Your task to perform on an android device: turn notification dots off Image 0: 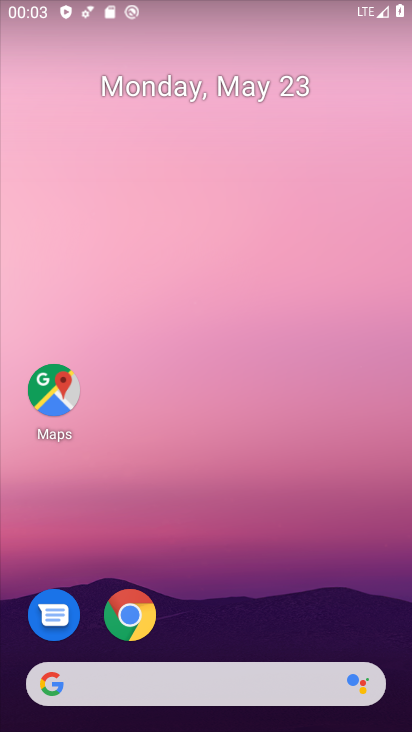
Step 0: drag from (268, 580) to (318, 90)
Your task to perform on an android device: turn notification dots off Image 1: 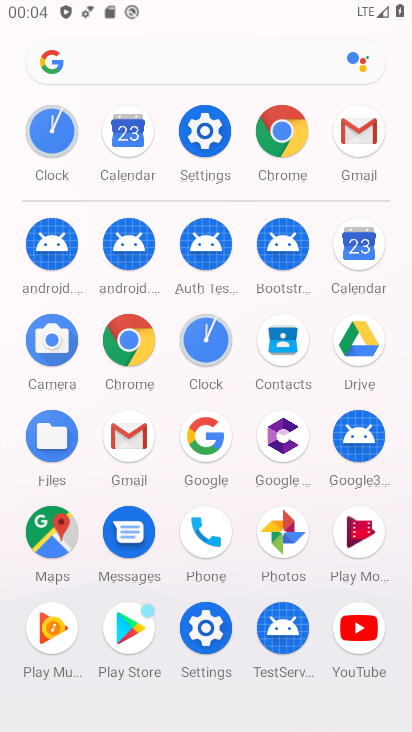
Step 1: click (211, 125)
Your task to perform on an android device: turn notification dots off Image 2: 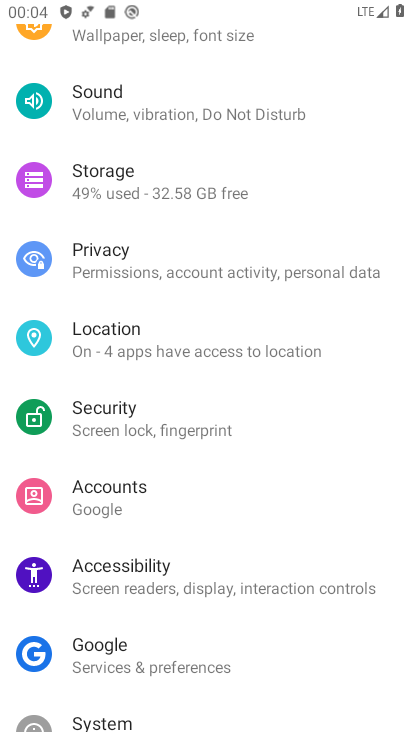
Step 2: drag from (212, 131) to (139, 677)
Your task to perform on an android device: turn notification dots off Image 3: 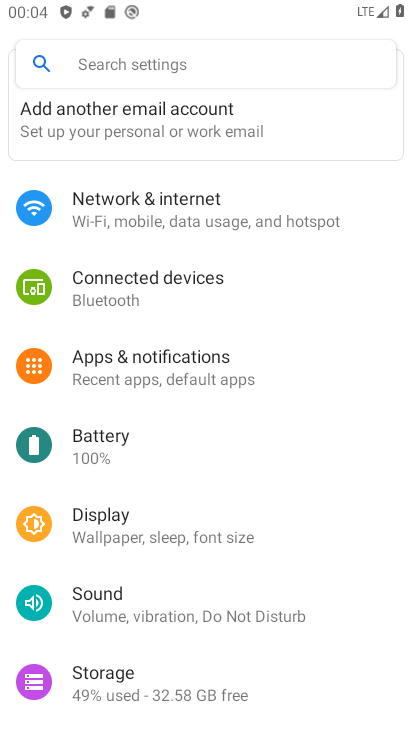
Step 3: click (146, 357)
Your task to perform on an android device: turn notification dots off Image 4: 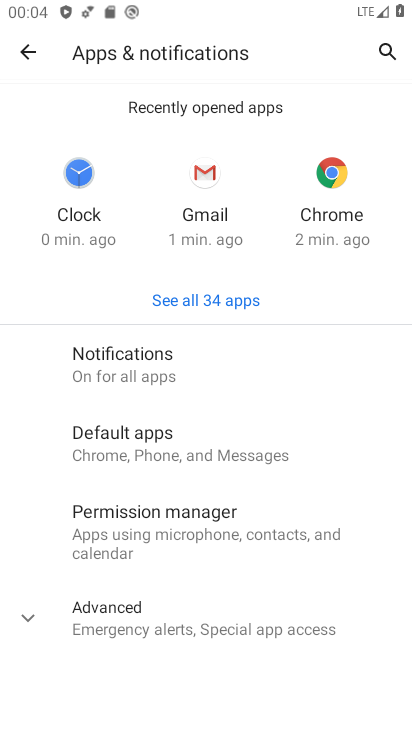
Step 4: click (158, 350)
Your task to perform on an android device: turn notification dots off Image 5: 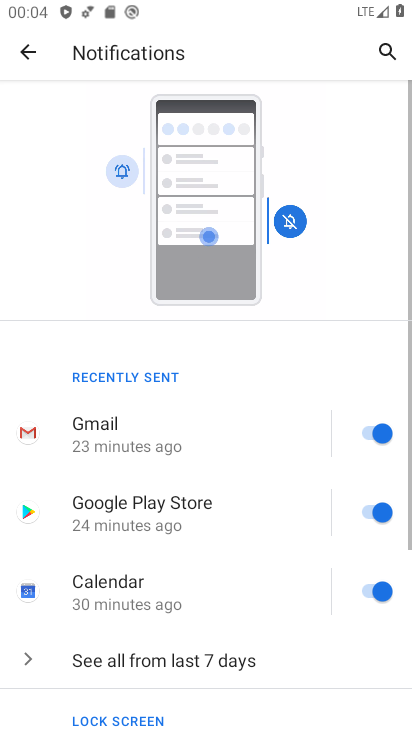
Step 5: drag from (180, 645) to (202, 307)
Your task to perform on an android device: turn notification dots off Image 6: 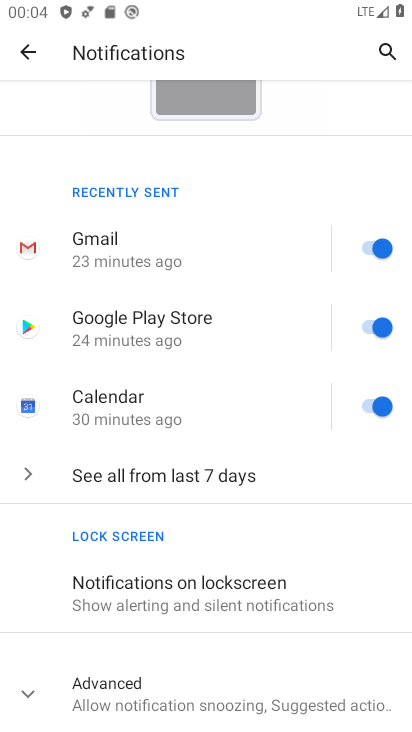
Step 6: click (160, 692)
Your task to perform on an android device: turn notification dots off Image 7: 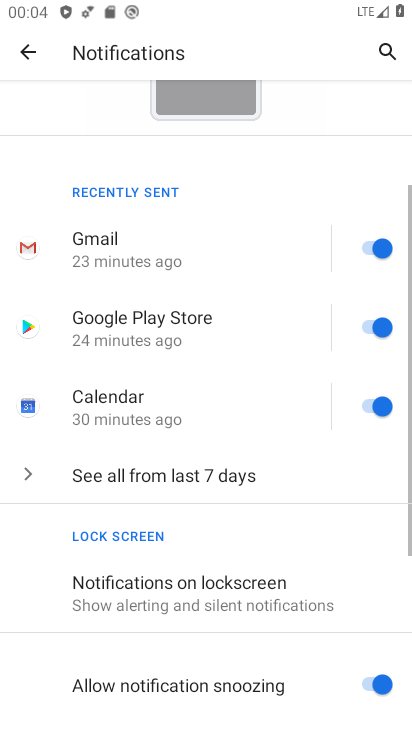
Step 7: drag from (155, 689) to (222, 210)
Your task to perform on an android device: turn notification dots off Image 8: 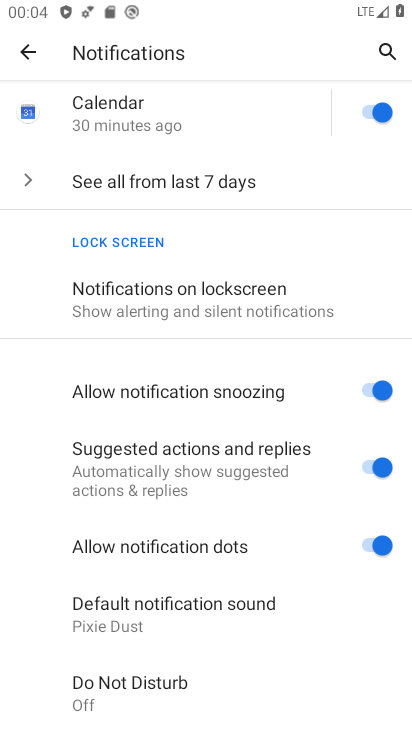
Step 8: click (379, 542)
Your task to perform on an android device: turn notification dots off Image 9: 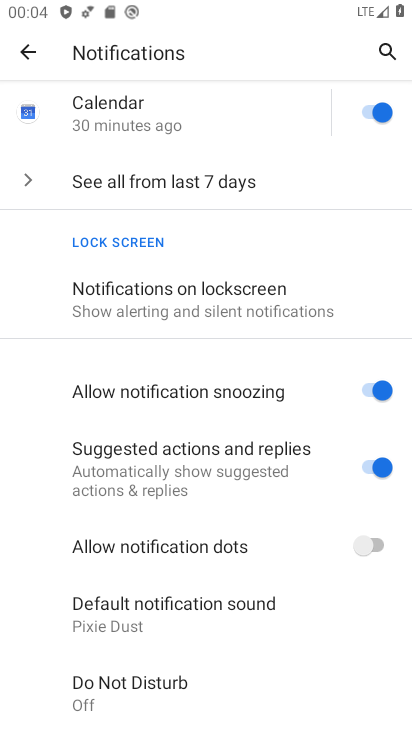
Step 9: task complete